Your task to perform on an android device: Search for vegetarian restaurants on Maps Image 0: 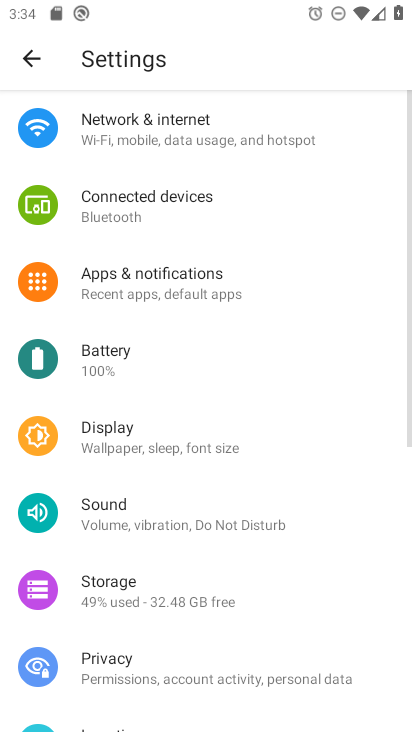
Step 0: press home button
Your task to perform on an android device: Search for vegetarian restaurants on Maps Image 1: 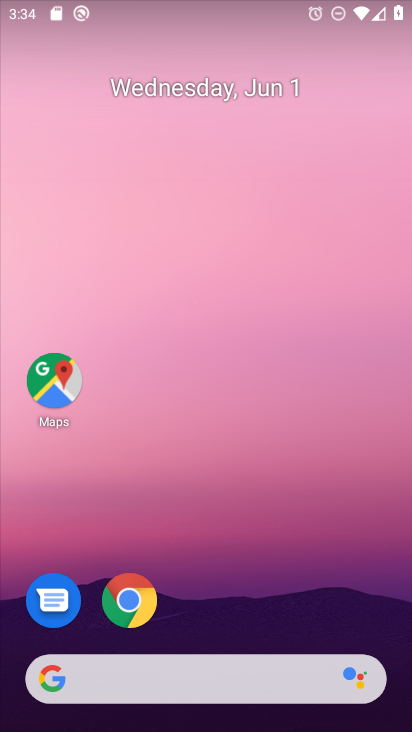
Step 1: drag from (186, 637) to (157, 275)
Your task to perform on an android device: Search for vegetarian restaurants on Maps Image 2: 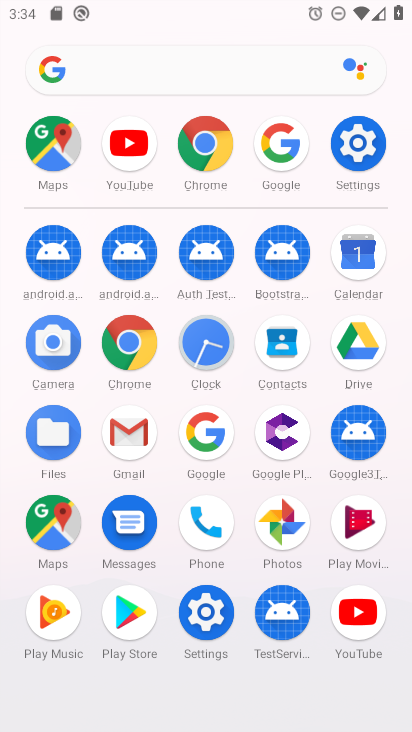
Step 2: click (48, 169)
Your task to perform on an android device: Search for vegetarian restaurants on Maps Image 3: 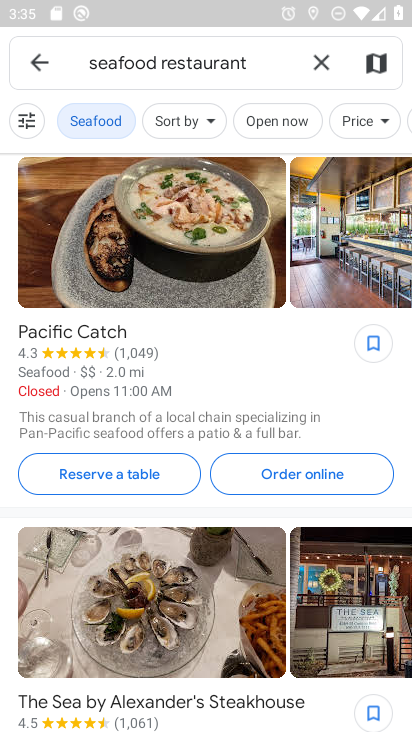
Step 3: click (315, 65)
Your task to perform on an android device: Search for vegetarian restaurants on Maps Image 4: 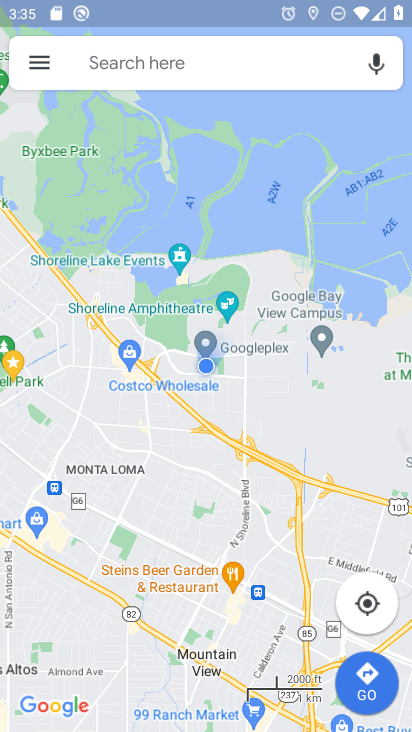
Step 4: click (163, 74)
Your task to perform on an android device: Search for vegetarian restaurants on Maps Image 5: 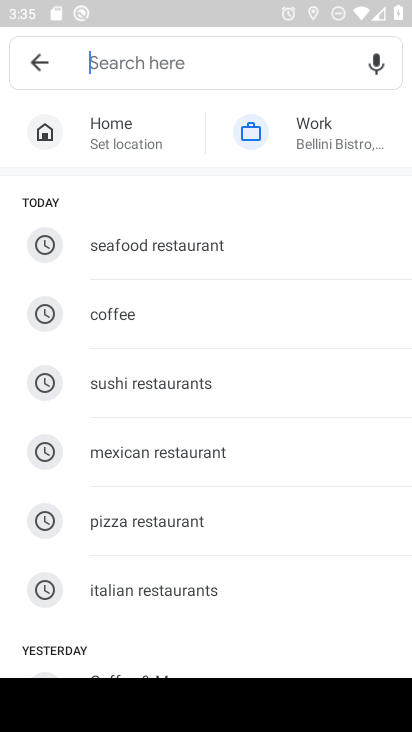
Step 5: drag from (131, 593) to (142, 385)
Your task to perform on an android device: Search for vegetarian restaurants on Maps Image 6: 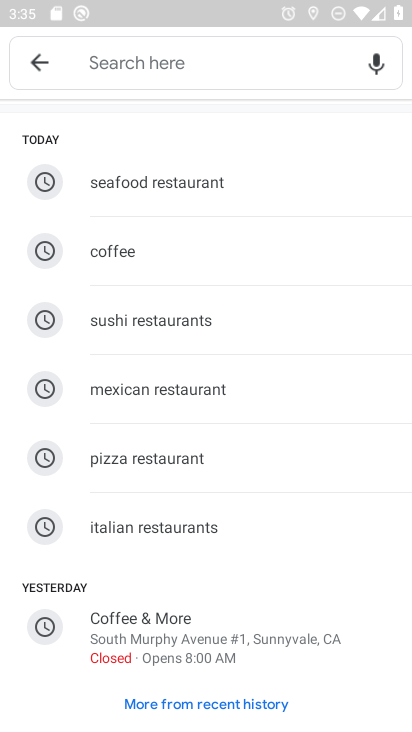
Step 6: click (144, 80)
Your task to perform on an android device: Search for vegetarian restaurants on Maps Image 7: 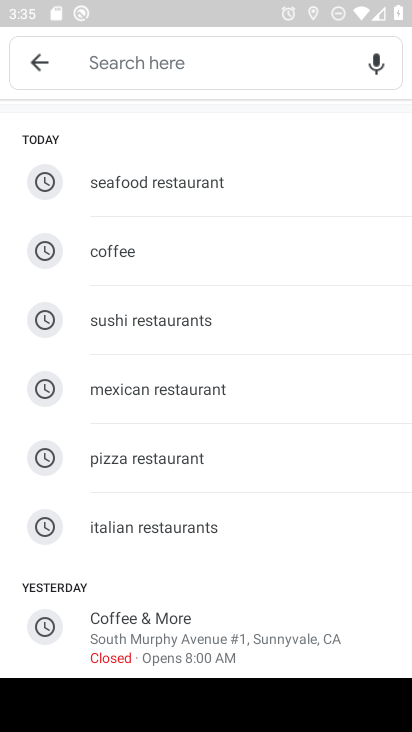
Step 7: type "vegetarian restaurants"
Your task to perform on an android device: Search for vegetarian restaurants on Maps Image 8: 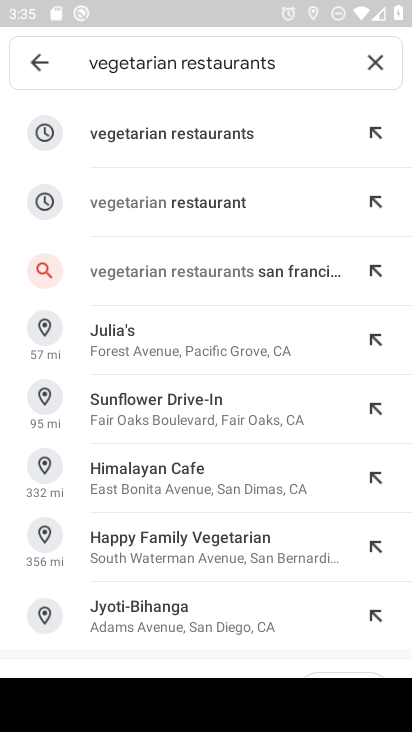
Step 8: click (207, 140)
Your task to perform on an android device: Search for vegetarian restaurants on Maps Image 9: 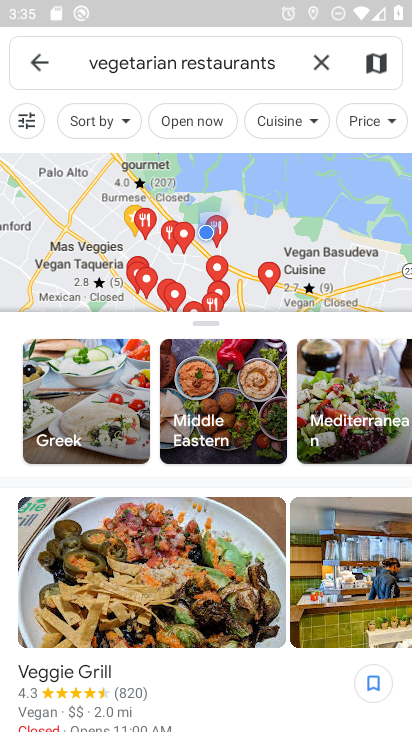
Step 9: task complete